Your task to perform on an android device: Open calendar and show me the third week of next month Image 0: 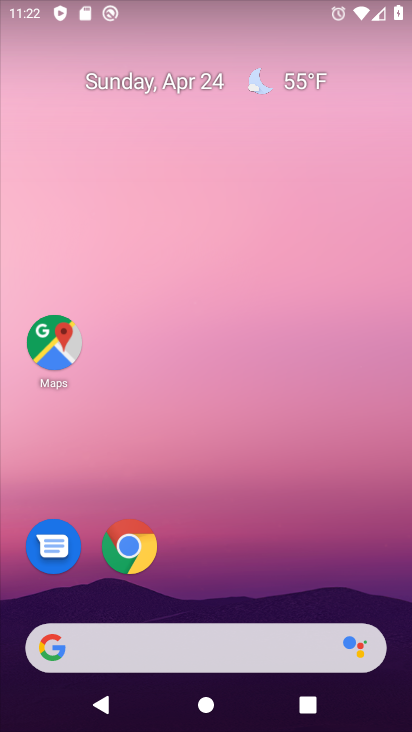
Step 0: drag from (215, 454) to (218, 34)
Your task to perform on an android device: Open calendar and show me the third week of next month Image 1: 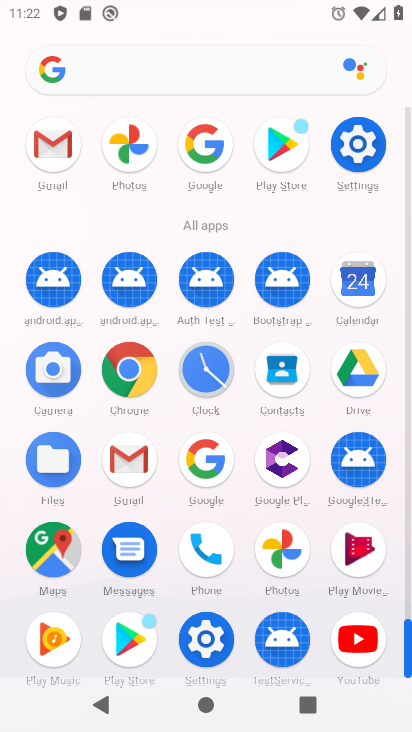
Step 1: click (357, 281)
Your task to perform on an android device: Open calendar and show me the third week of next month Image 2: 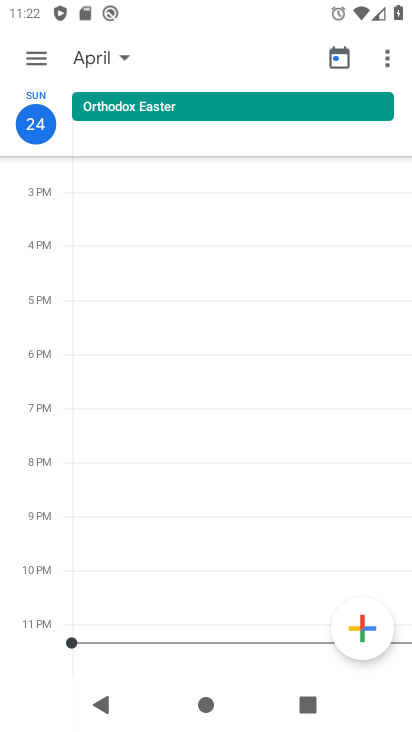
Step 2: click (124, 56)
Your task to perform on an android device: Open calendar and show me the third week of next month Image 3: 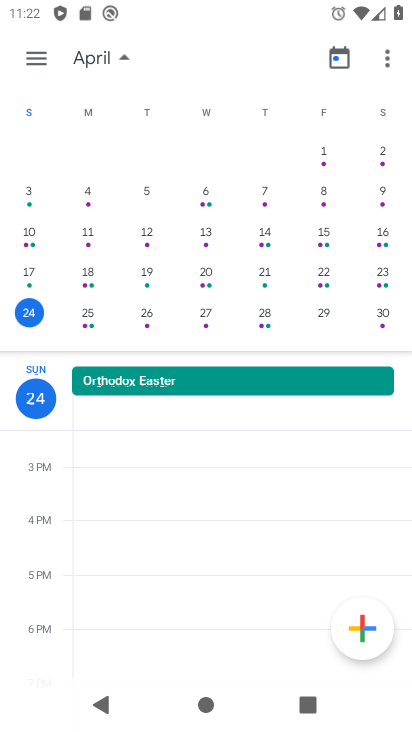
Step 3: drag from (346, 257) to (0, 353)
Your task to perform on an android device: Open calendar and show me the third week of next month Image 4: 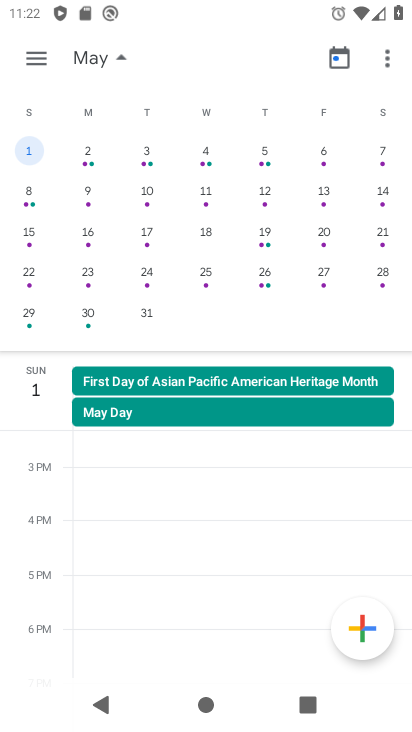
Step 4: click (93, 236)
Your task to perform on an android device: Open calendar and show me the third week of next month Image 5: 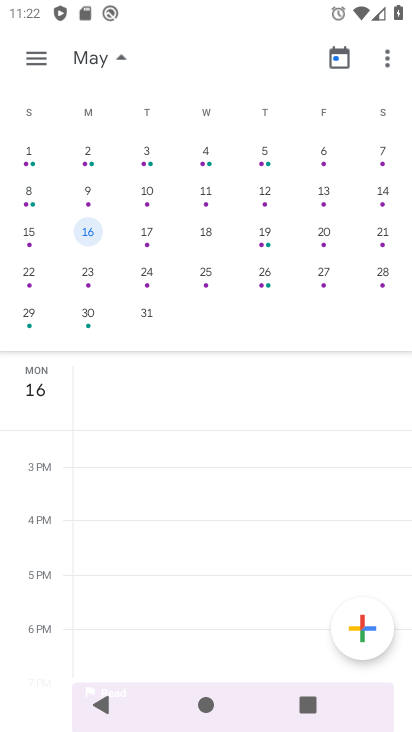
Step 5: click (32, 56)
Your task to perform on an android device: Open calendar and show me the third week of next month Image 6: 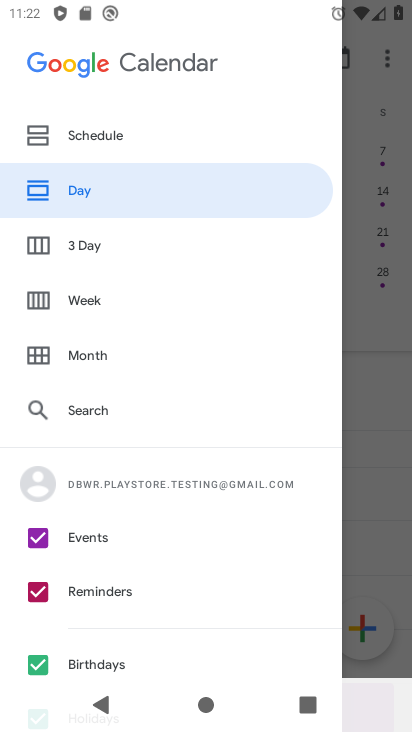
Step 6: click (74, 305)
Your task to perform on an android device: Open calendar and show me the third week of next month Image 7: 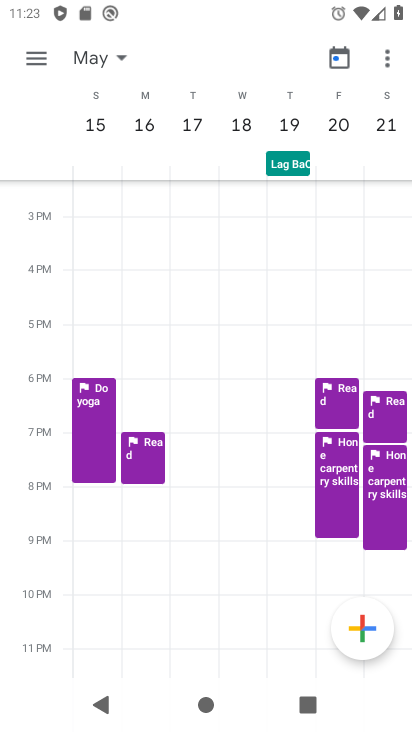
Step 7: task complete